Your task to perform on an android device: Open notification settings Image 0: 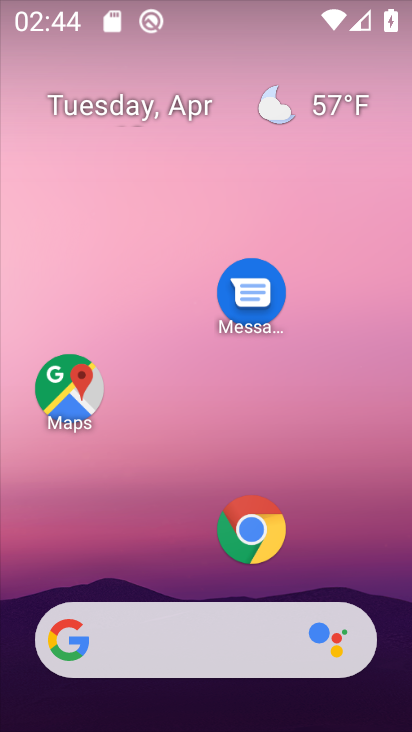
Step 0: drag from (164, 429) to (148, 100)
Your task to perform on an android device: Open notification settings Image 1: 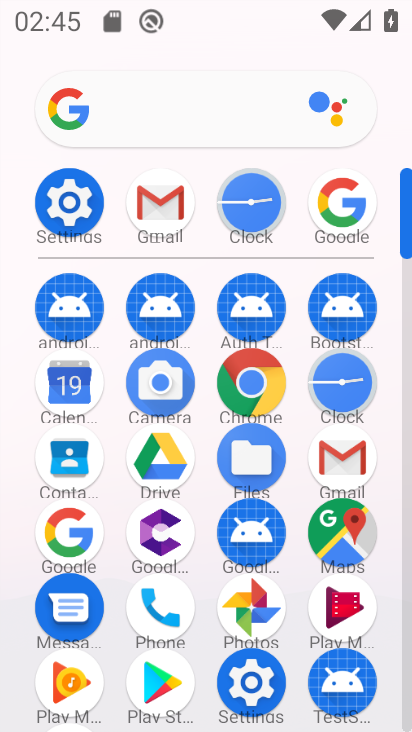
Step 1: click (70, 207)
Your task to perform on an android device: Open notification settings Image 2: 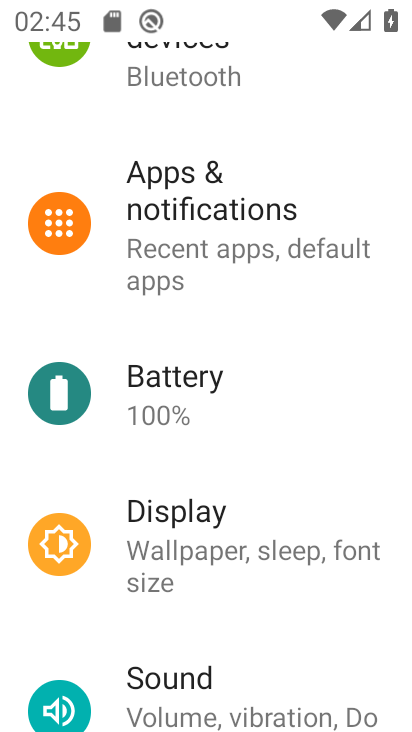
Step 2: drag from (229, 282) to (223, 420)
Your task to perform on an android device: Open notification settings Image 3: 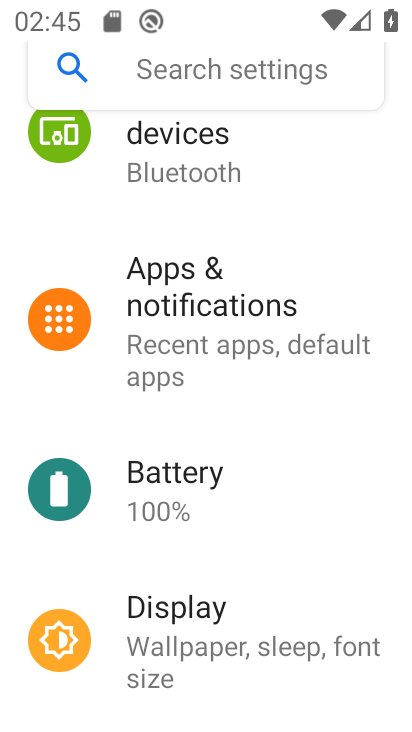
Step 3: click (195, 319)
Your task to perform on an android device: Open notification settings Image 4: 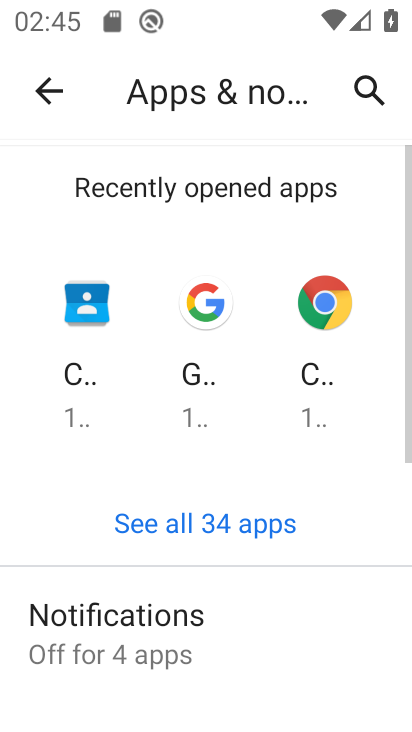
Step 4: drag from (238, 612) to (214, 395)
Your task to perform on an android device: Open notification settings Image 5: 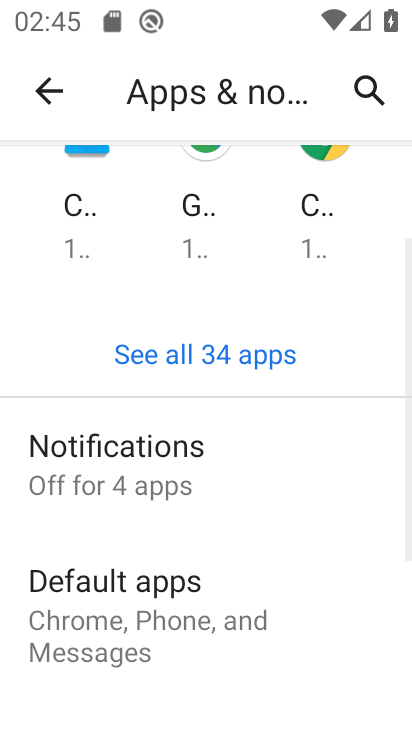
Step 5: click (150, 476)
Your task to perform on an android device: Open notification settings Image 6: 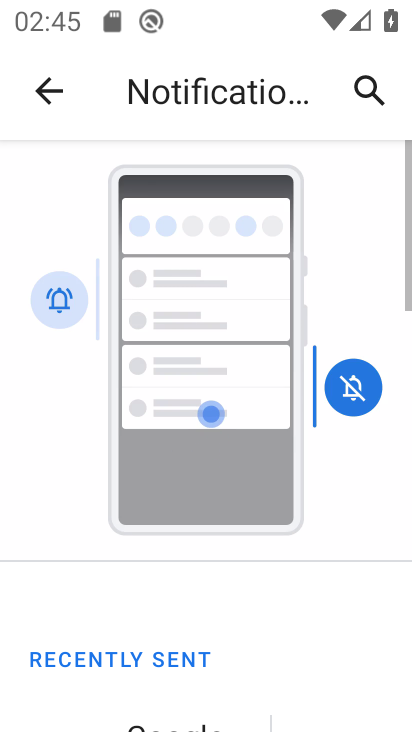
Step 6: task complete